Your task to perform on an android device: add a contact Image 0: 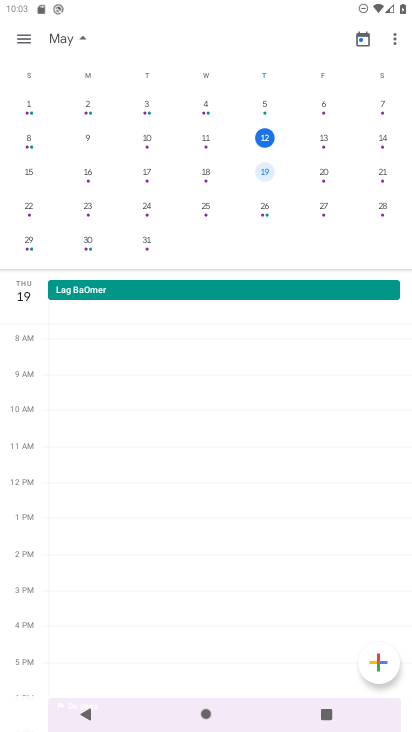
Step 0: press home button
Your task to perform on an android device: add a contact Image 1: 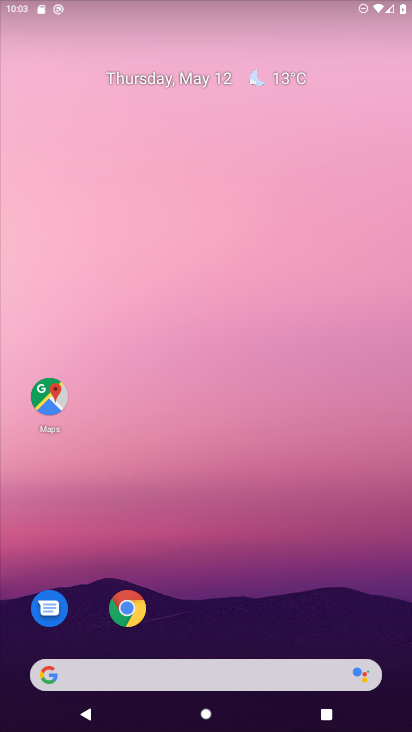
Step 1: drag from (289, 532) to (305, 90)
Your task to perform on an android device: add a contact Image 2: 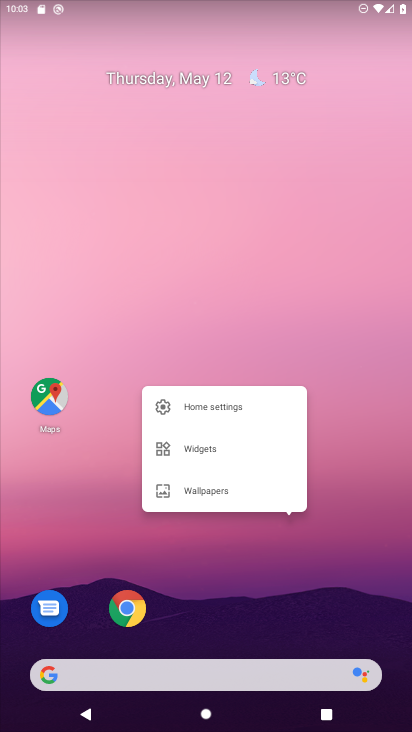
Step 2: click (301, 564)
Your task to perform on an android device: add a contact Image 3: 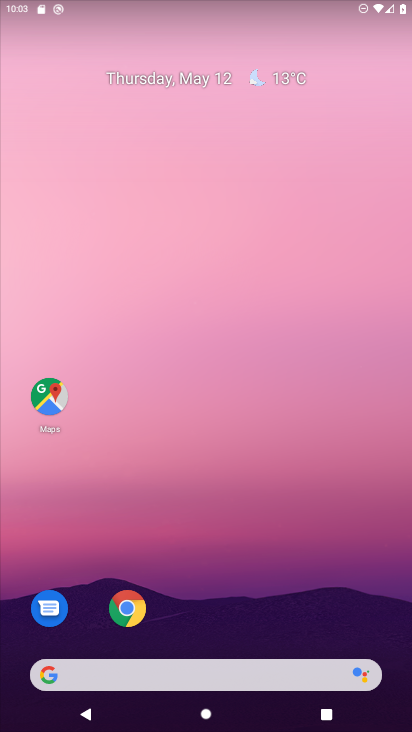
Step 3: drag from (215, 662) to (278, 89)
Your task to perform on an android device: add a contact Image 4: 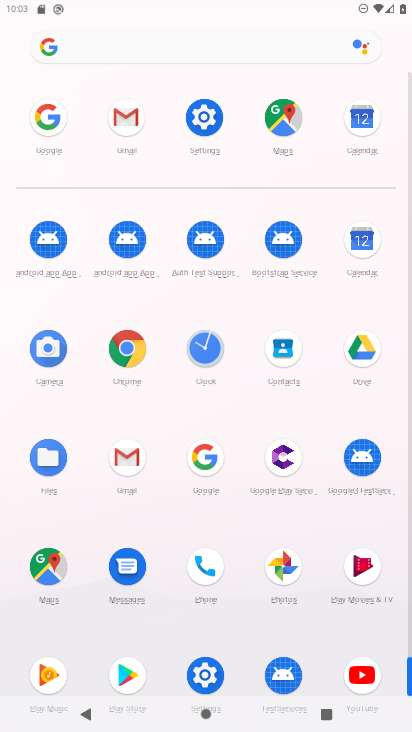
Step 4: click (282, 353)
Your task to perform on an android device: add a contact Image 5: 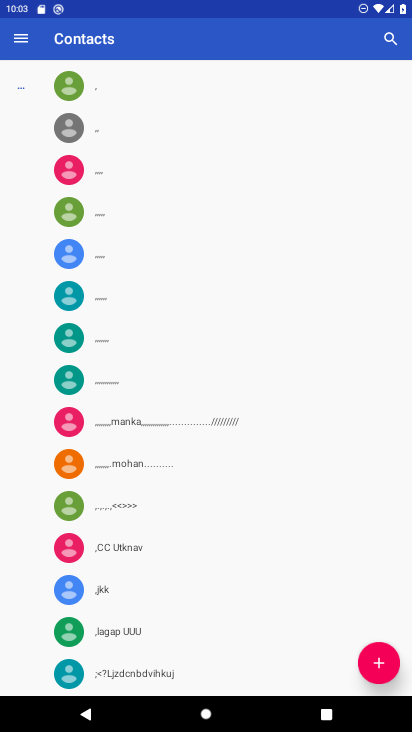
Step 5: click (373, 658)
Your task to perform on an android device: add a contact Image 6: 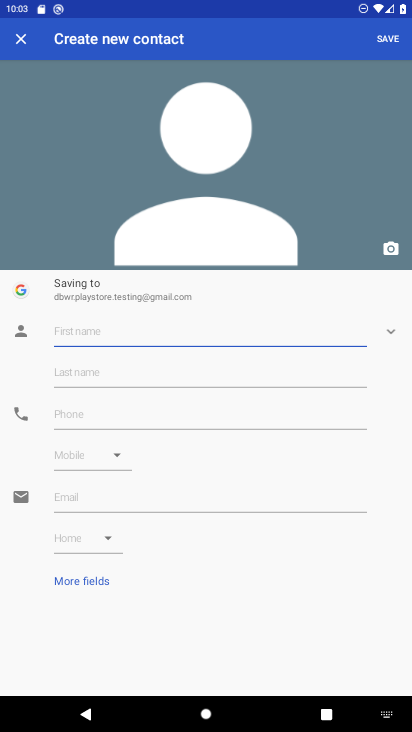
Step 6: click (143, 328)
Your task to perform on an android device: add a contact Image 7: 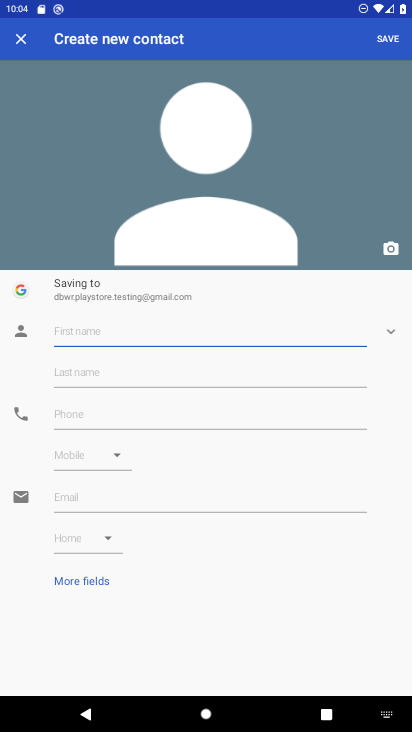
Step 7: type "hytyy"
Your task to perform on an android device: add a contact Image 8: 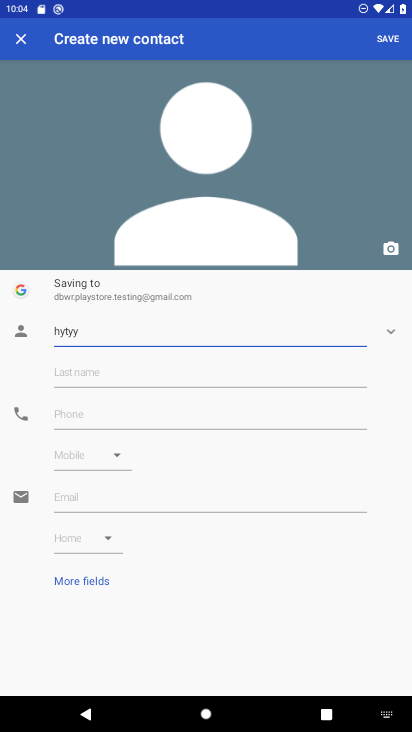
Step 8: click (385, 43)
Your task to perform on an android device: add a contact Image 9: 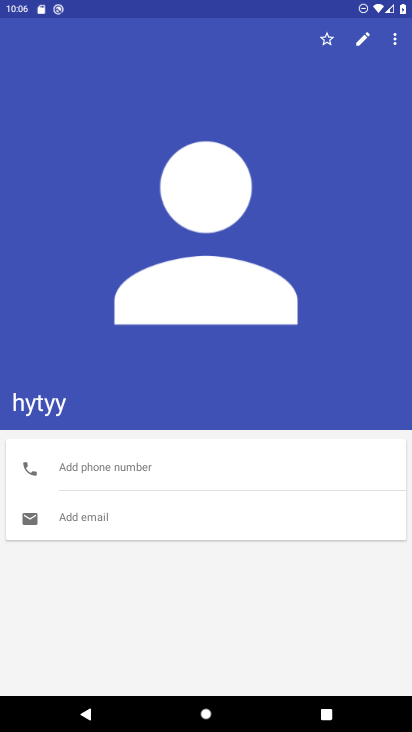
Step 9: task complete